Your task to perform on an android device: Go to Google maps Image 0: 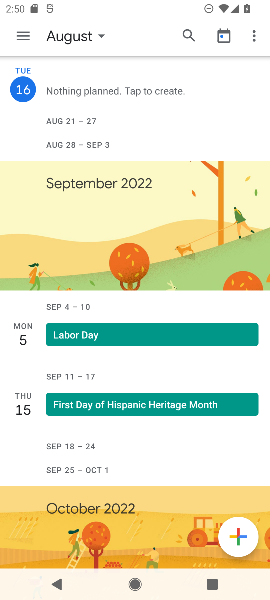
Step 0: press home button
Your task to perform on an android device: Go to Google maps Image 1: 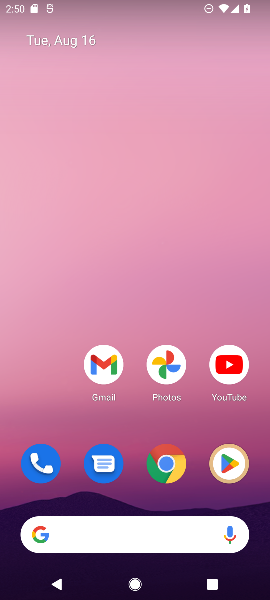
Step 1: drag from (133, 501) to (116, 6)
Your task to perform on an android device: Go to Google maps Image 2: 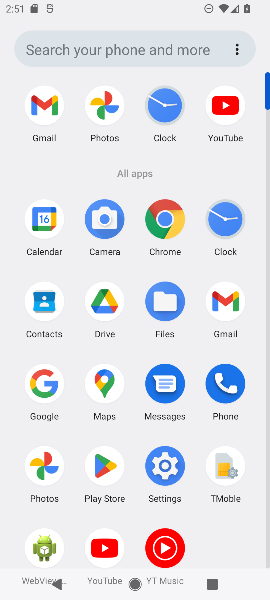
Step 2: click (100, 393)
Your task to perform on an android device: Go to Google maps Image 3: 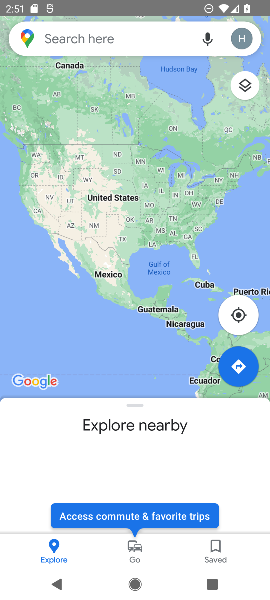
Step 3: task complete